Your task to perform on an android device: open app "Google Pay: Save, Pay, Manage" (install if not already installed) Image 0: 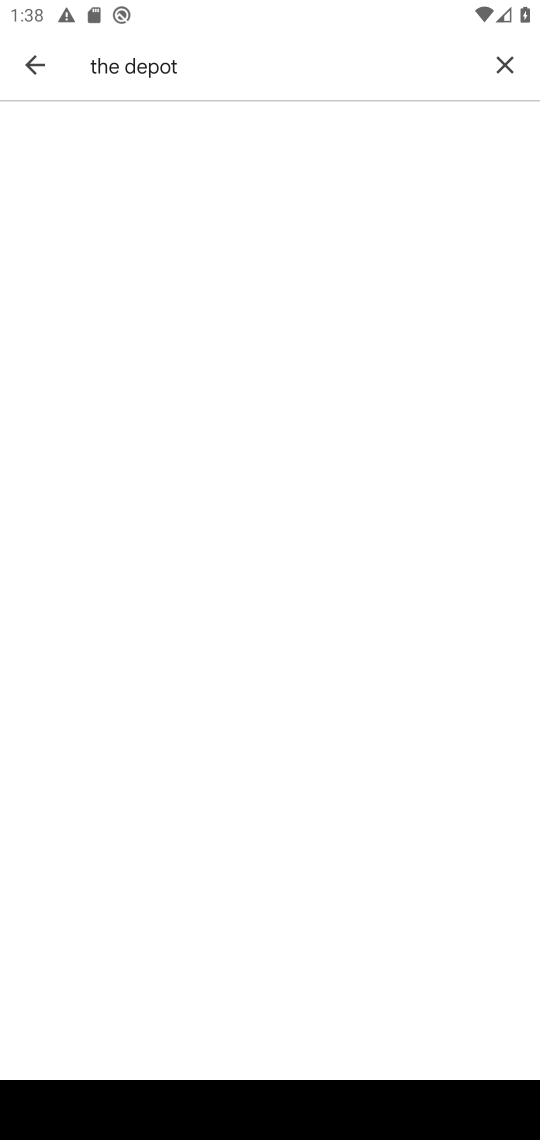
Step 0: click (503, 81)
Your task to perform on an android device: open app "Google Pay: Save, Pay, Manage" (install if not already installed) Image 1: 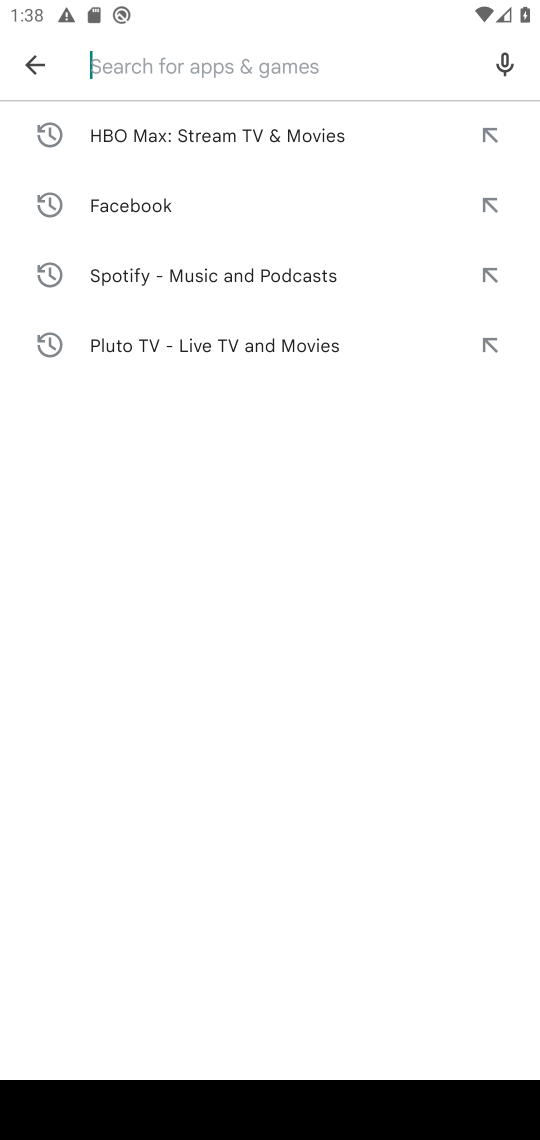
Step 1: type "google pay"
Your task to perform on an android device: open app "Google Pay: Save, Pay, Manage" (install if not already installed) Image 2: 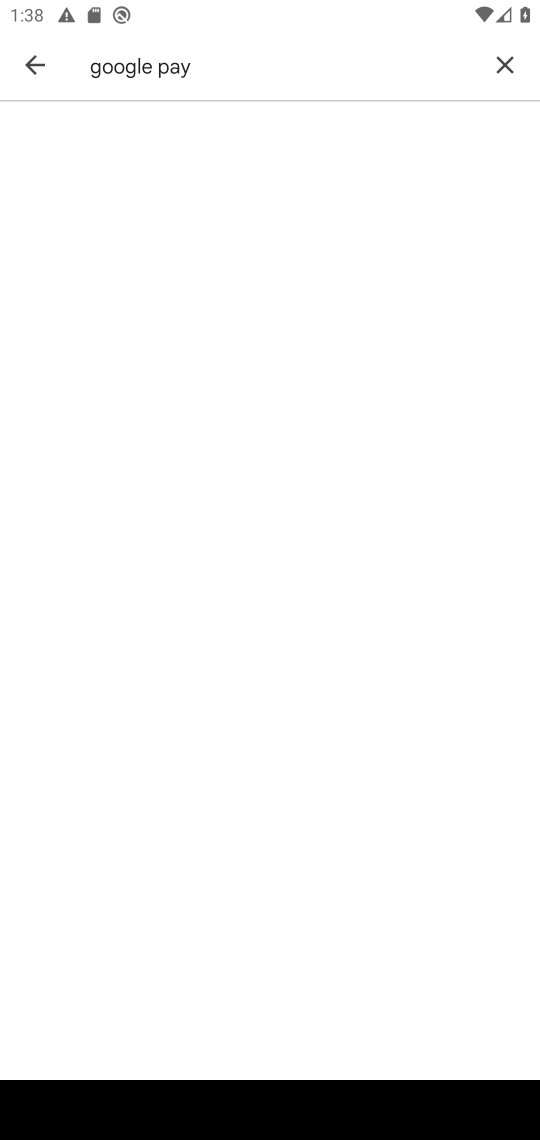
Step 2: task complete